Your task to perform on an android device: Go to wifi settings Image 0: 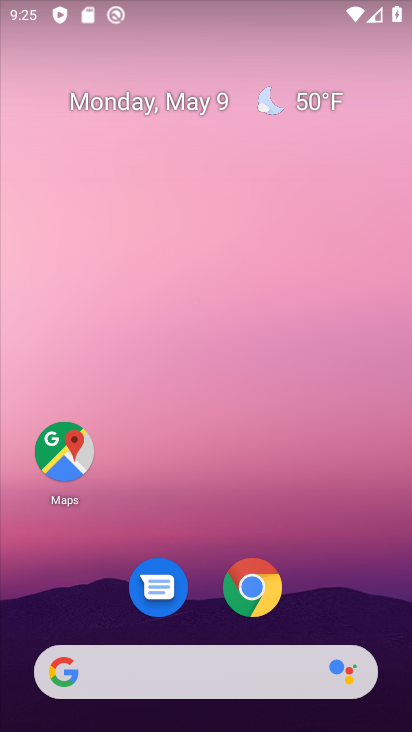
Step 0: drag from (207, 727) to (190, 164)
Your task to perform on an android device: Go to wifi settings Image 1: 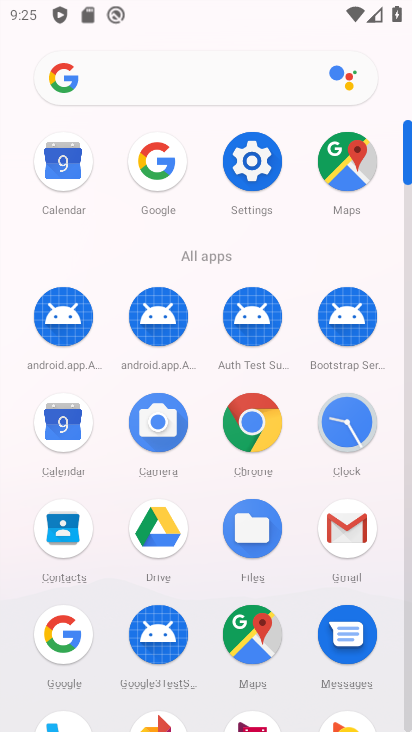
Step 1: click (248, 167)
Your task to perform on an android device: Go to wifi settings Image 2: 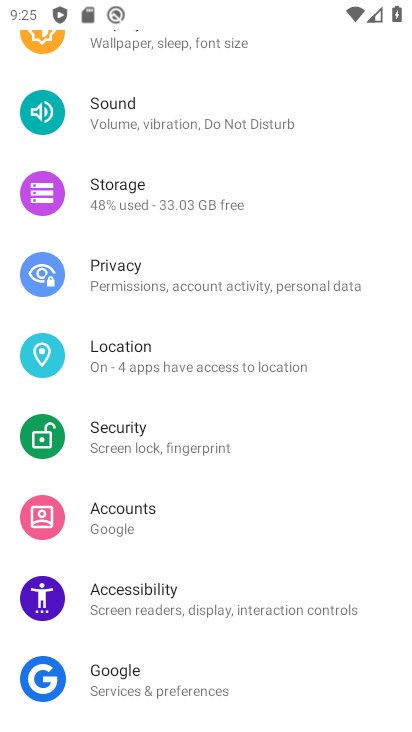
Step 2: drag from (271, 171) to (224, 578)
Your task to perform on an android device: Go to wifi settings Image 3: 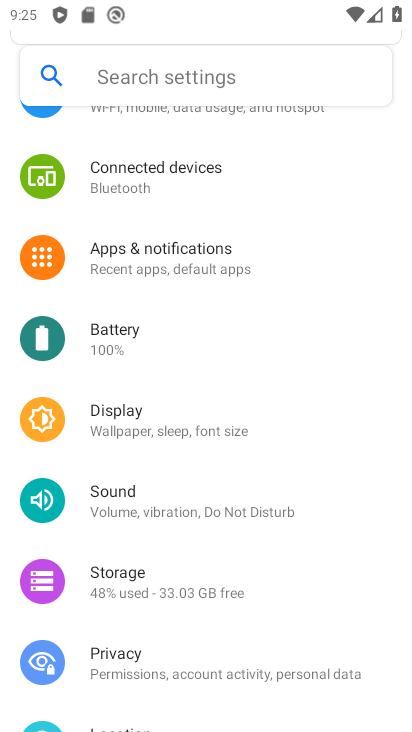
Step 3: drag from (250, 151) to (245, 578)
Your task to perform on an android device: Go to wifi settings Image 4: 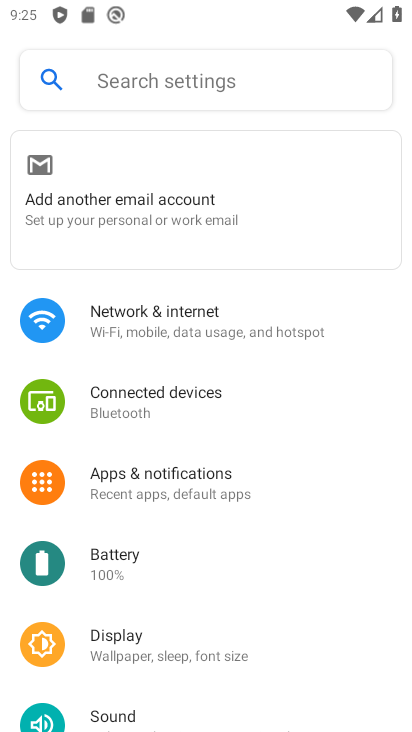
Step 4: click (126, 322)
Your task to perform on an android device: Go to wifi settings Image 5: 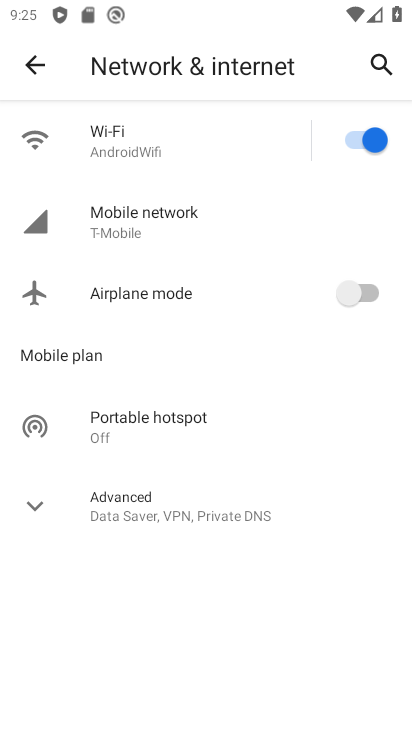
Step 5: click (120, 141)
Your task to perform on an android device: Go to wifi settings Image 6: 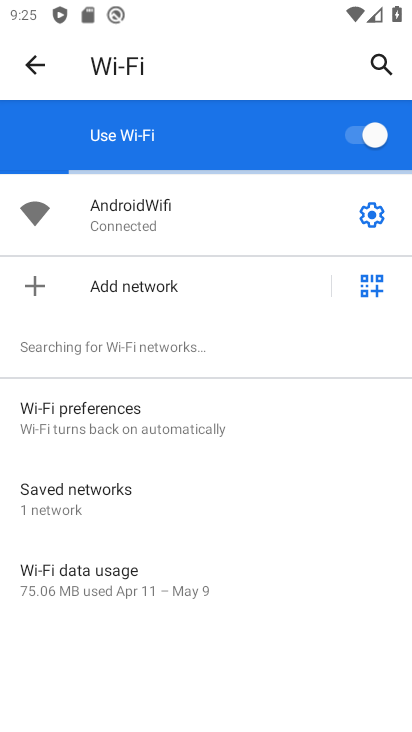
Step 6: task complete